Your task to perform on an android device: turn pop-ups off in chrome Image 0: 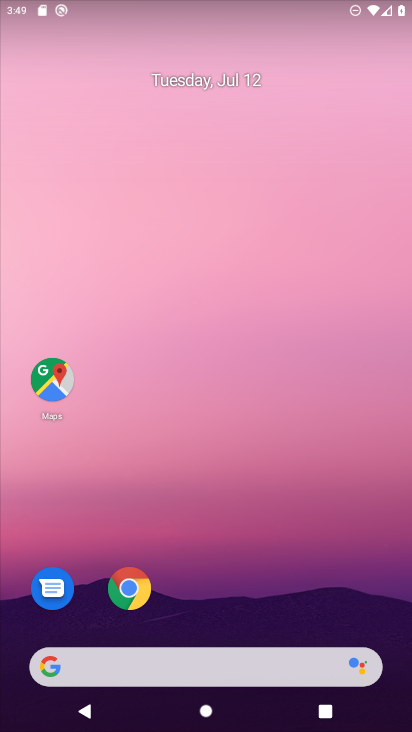
Step 0: drag from (232, 603) to (201, 82)
Your task to perform on an android device: turn pop-ups off in chrome Image 1: 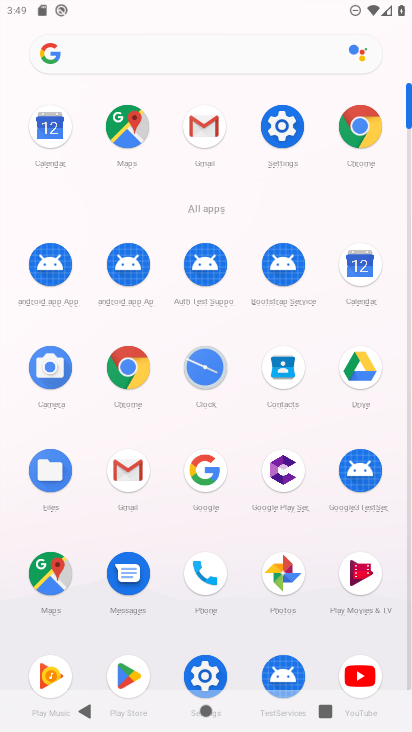
Step 1: click (369, 131)
Your task to perform on an android device: turn pop-ups off in chrome Image 2: 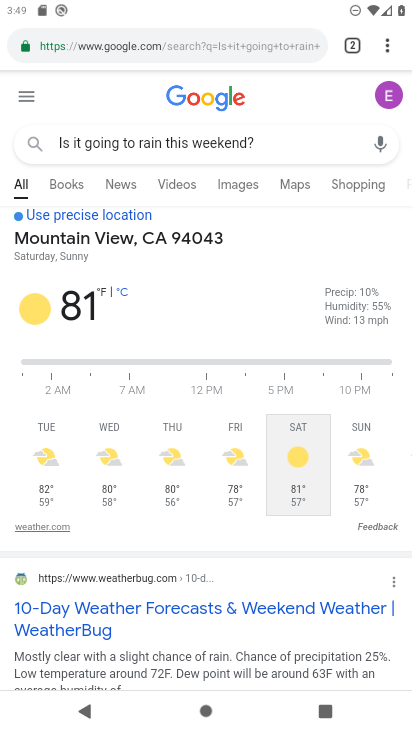
Step 2: click (387, 50)
Your task to perform on an android device: turn pop-ups off in chrome Image 3: 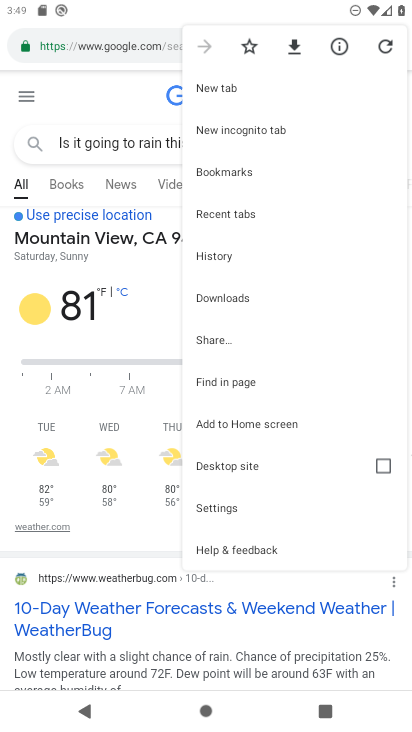
Step 3: click (291, 507)
Your task to perform on an android device: turn pop-ups off in chrome Image 4: 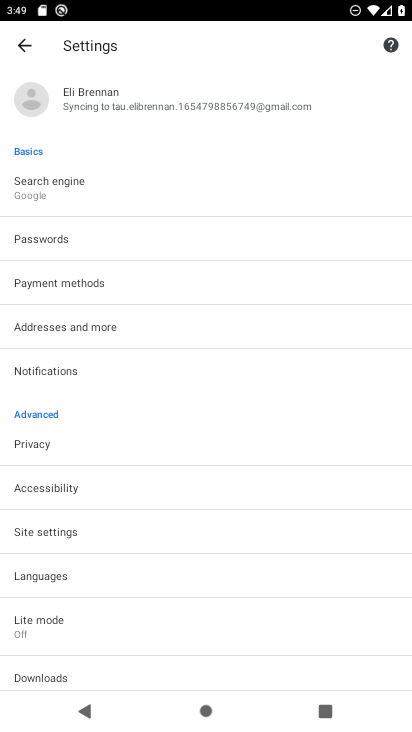
Step 4: click (217, 626)
Your task to perform on an android device: turn pop-ups off in chrome Image 5: 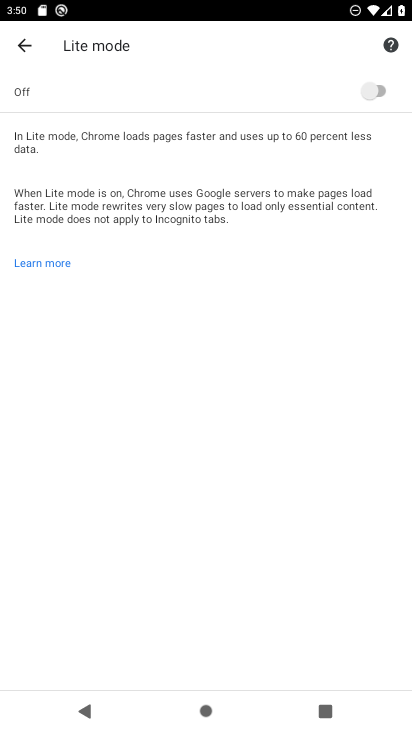
Step 5: task complete